Your task to perform on an android device: Turn on the flashlight Image 0: 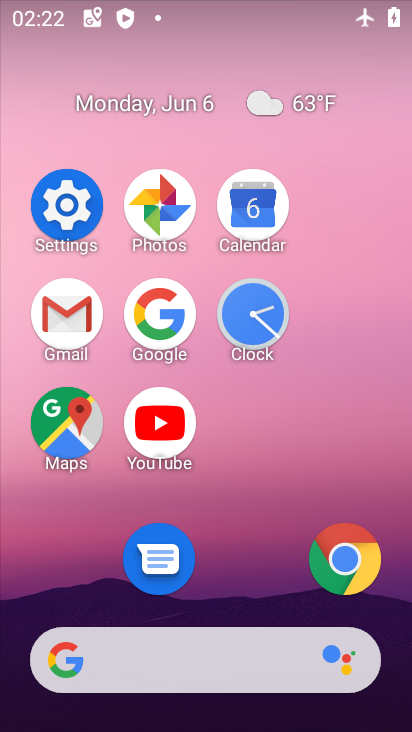
Step 0: drag from (279, 53) to (266, 628)
Your task to perform on an android device: Turn on the flashlight Image 1: 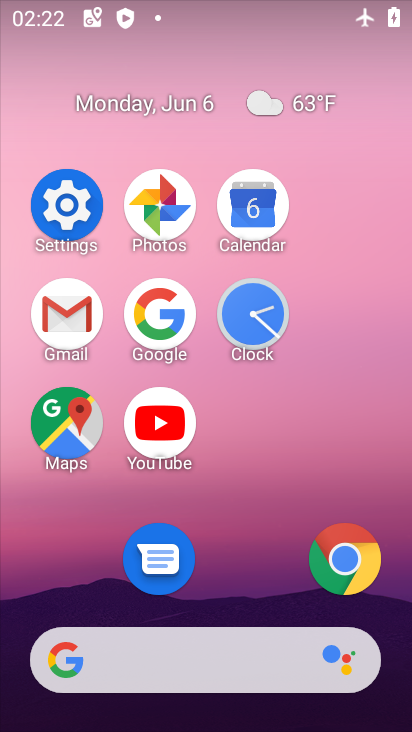
Step 1: task complete